Your task to perform on an android device: Open Google Chrome and open the bookmarks view Image 0: 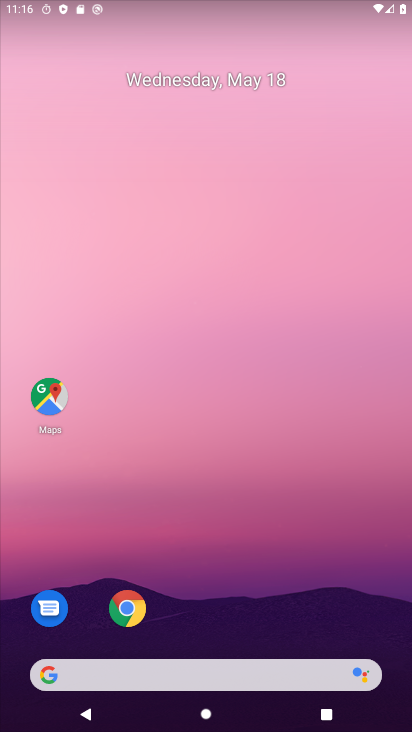
Step 0: click (138, 605)
Your task to perform on an android device: Open Google Chrome and open the bookmarks view Image 1: 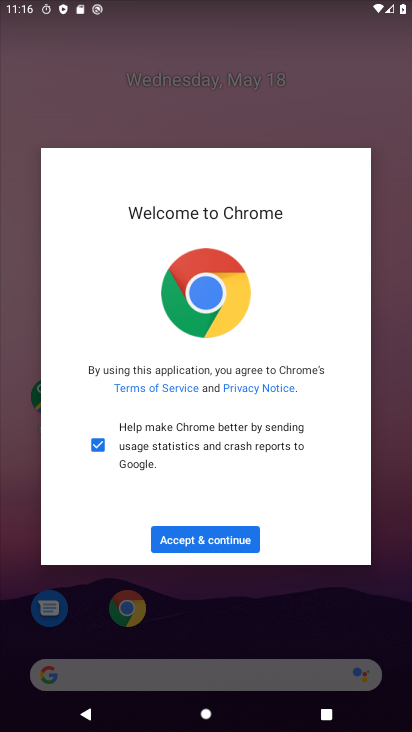
Step 1: click (223, 538)
Your task to perform on an android device: Open Google Chrome and open the bookmarks view Image 2: 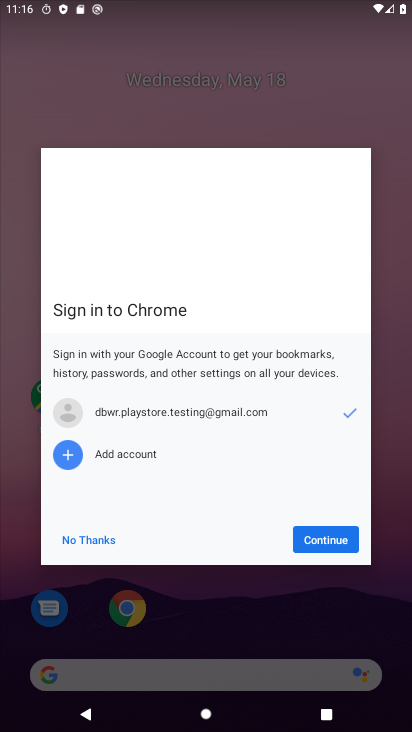
Step 2: click (316, 532)
Your task to perform on an android device: Open Google Chrome and open the bookmarks view Image 3: 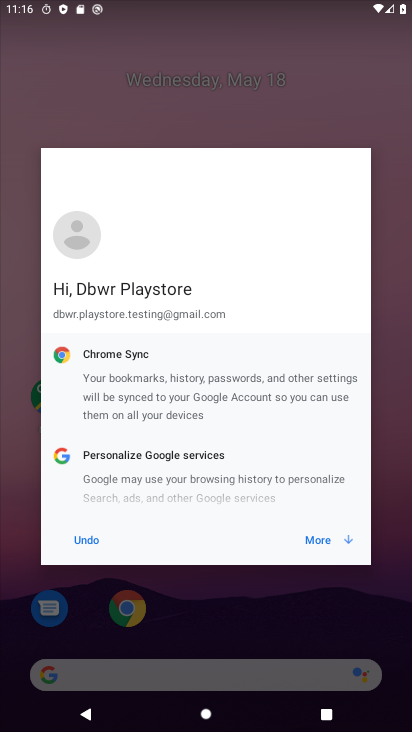
Step 3: click (316, 532)
Your task to perform on an android device: Open Google Chrome and open the bookmarks view Image 4: 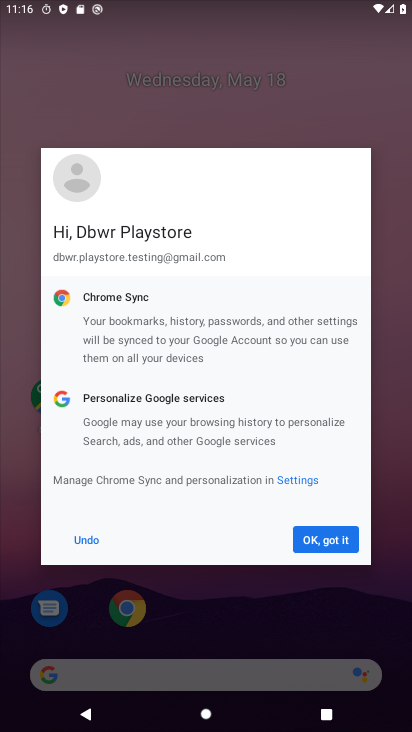
Step 4: click (316, 532)
Your task to perform on an android device: Open Google Chrome and open the bookmarks view Image 5: 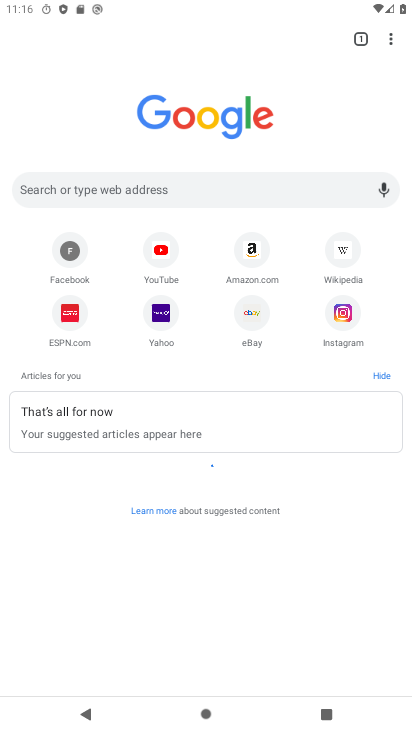
Step 5: click (395, 46)
Your task to perform on an android device: Open Google Chrome and open the bookmarks view Image 6: 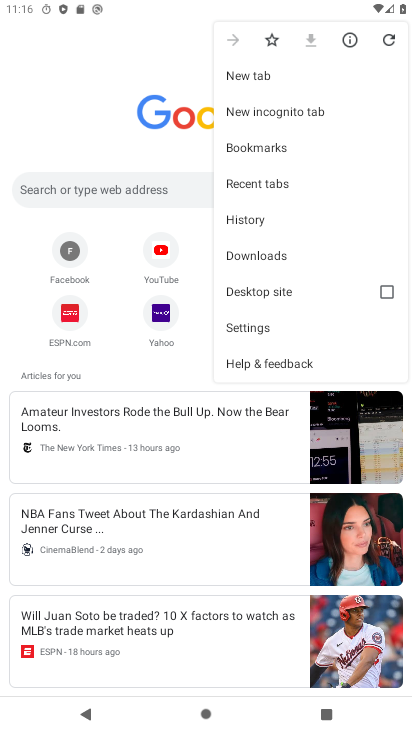
Step 6: click (353, 152)
Your task to perform on an android device: Open Google Chrome and open the bookmarks view Image 7: 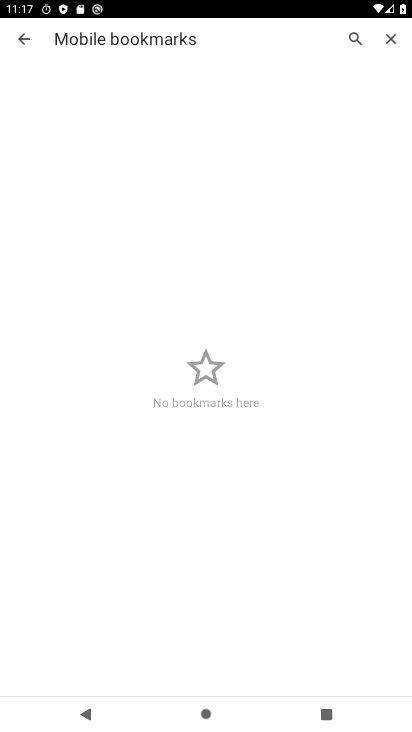
Step 7: task complete